Your task to perform on an android device: toggle javascript in the chrome app Image 0: 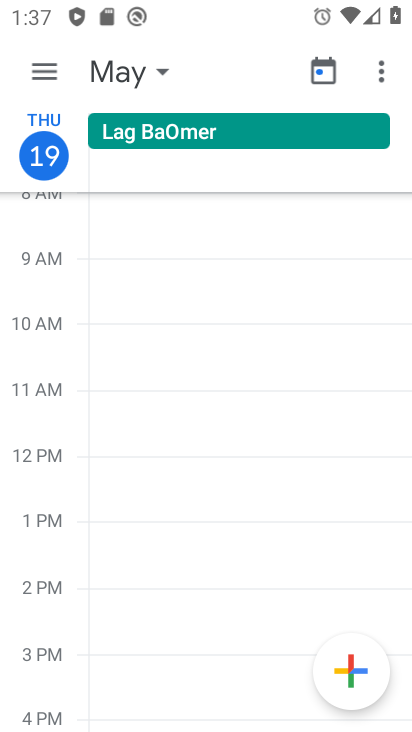
Step 0: press home button
Your task to perform on an android device: toggle javascript in the chrome app Image 1: 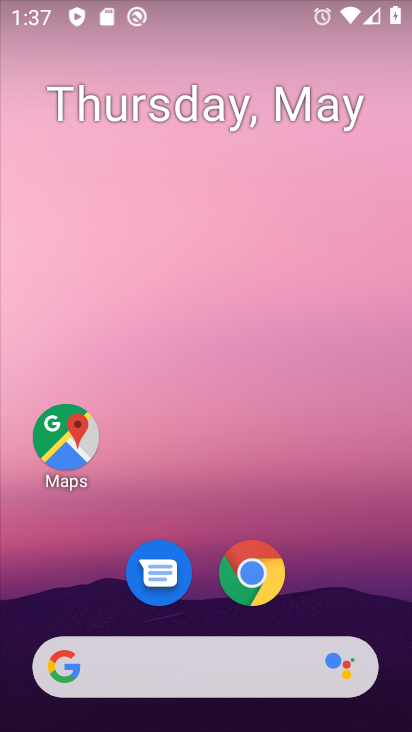
Step 1: click (238, 594)
Your task to perform on an android device: toggle javascript in the chrome app Image 2: 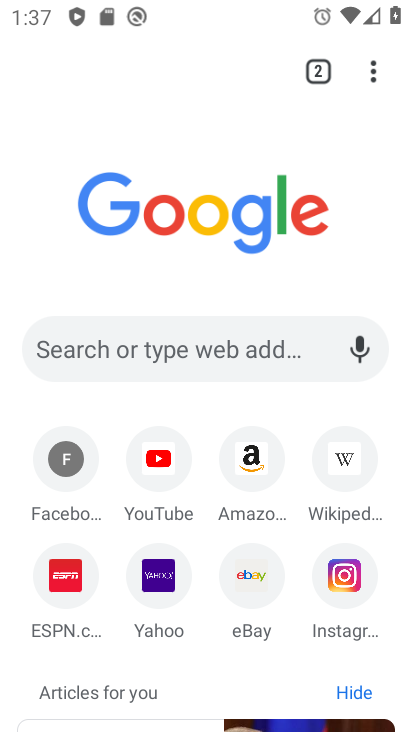
Step 2: click (370, 72)
Your task to perform on an android device: toggle javascript in the chrome app Image 3: 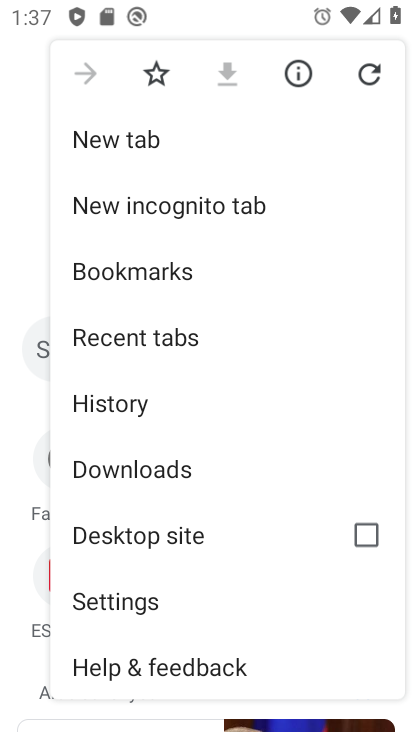
Step 3: drag from (246, 576) to (250, 436)
Your task to perform on an android device: toggle javascript in the chrome app Image 4: 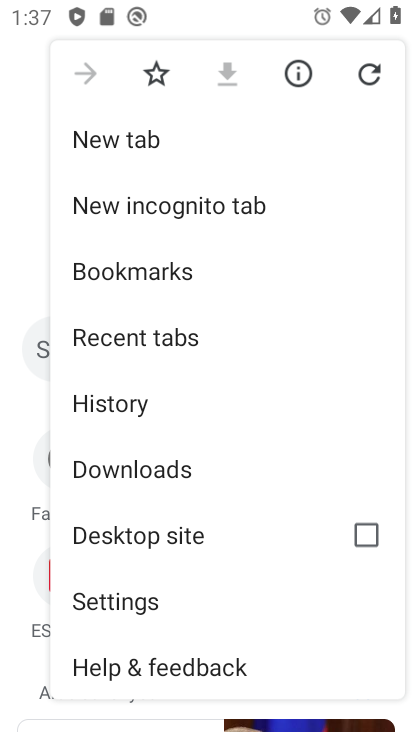
Step 4: click (114, 596)
Your task to perform on an android device: toggle javascript in the chrome app Image 5: 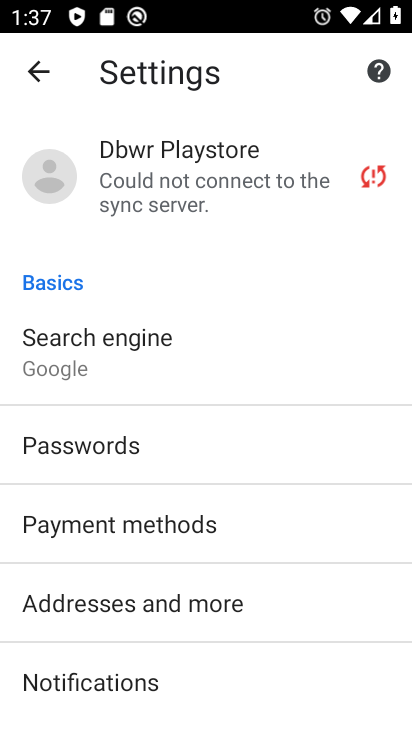
Step 5: drag from (264, 674) to (302, 472)
Your task to perform on an android device: toggle javascript in the chrome app Image 6: 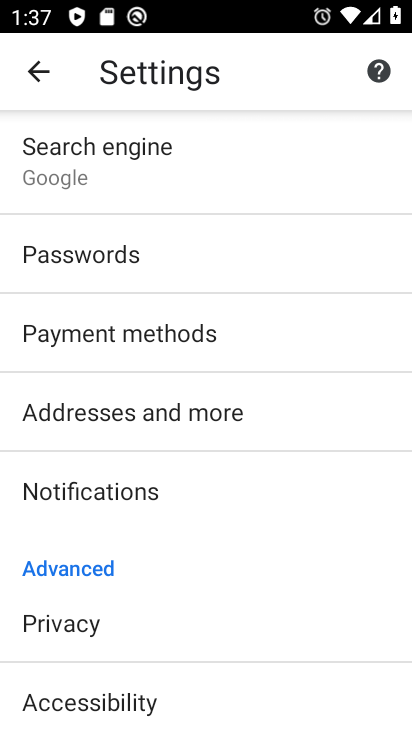
Step 6: drag from (240, 690) to (267, 478)
Your task to perform on an android device: toggle javascript in the chrome app Image 7: 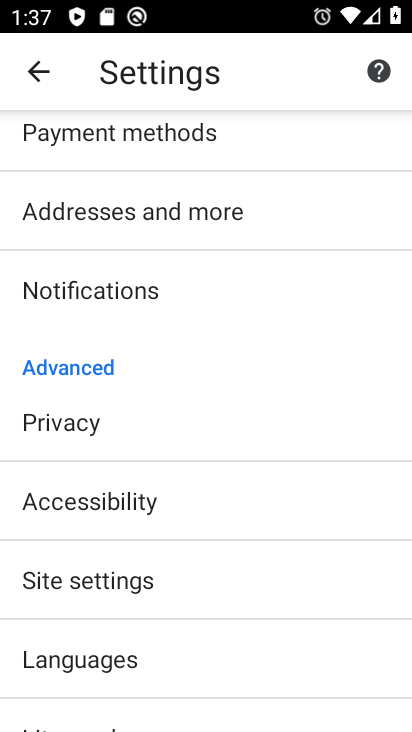
Step 7: click (120, 585)
Your task to perform on an android device: toggle javascript in the chrome app Image 8: 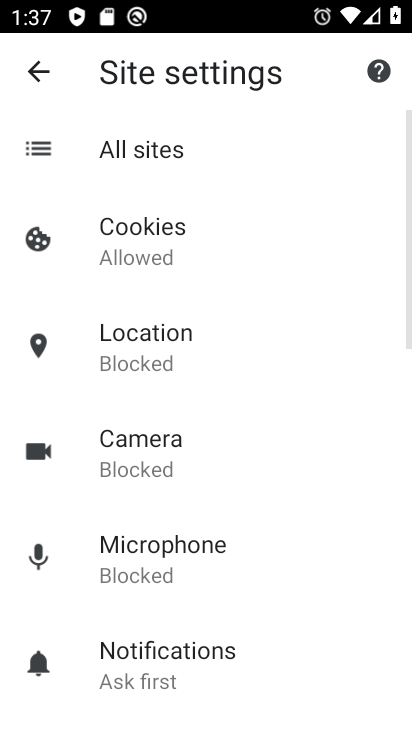
Step 8: drag from (275, 677) to (328, 349)
Your task to perform on an android device: toggle javascript in the chrome app Image 9: 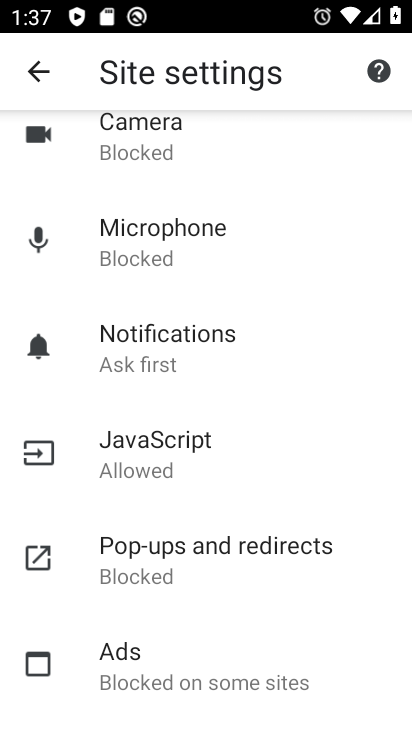
Step 9: click (145, 455)
Your task to perform on an android device: toggle javascript in the chrome app Image 10: 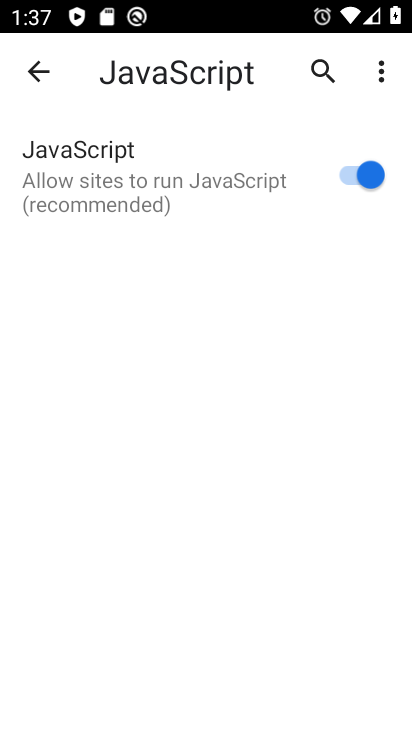
Step 10: click (328, 176)
Your task to perform on an android device: toggle javascript in the chrome app Image 11: 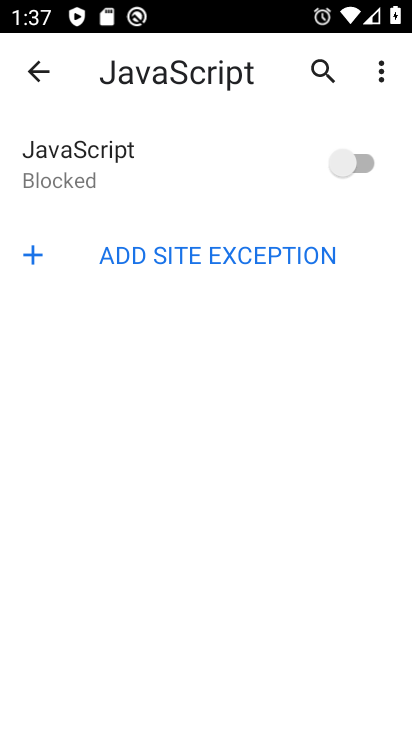
Step 11: task complete